Your task to perform on an android device: Open calendar and show me the third week of next month Image 0: 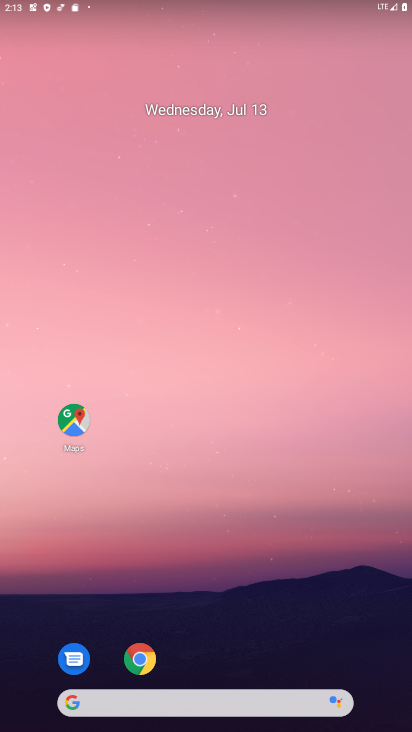
Step 0: drag from (388, 654) to (338, 230)
Your task to perform on an android device: Open calendar and show me the third week of next month Image 1: 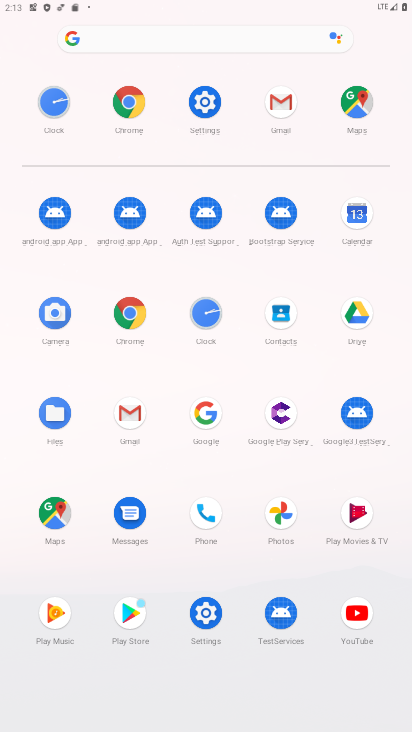
Step 1: click (358, 214)
Your task to perform on an android device: Open calendar and show me the third week of next month Image 2: 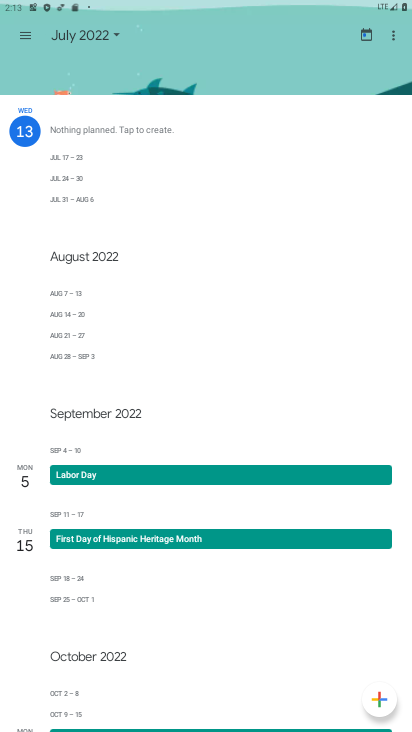
Step 2: click (25, 37)
Your task to perform on an android device: Open calendar and show me the third week of next month Image 3: 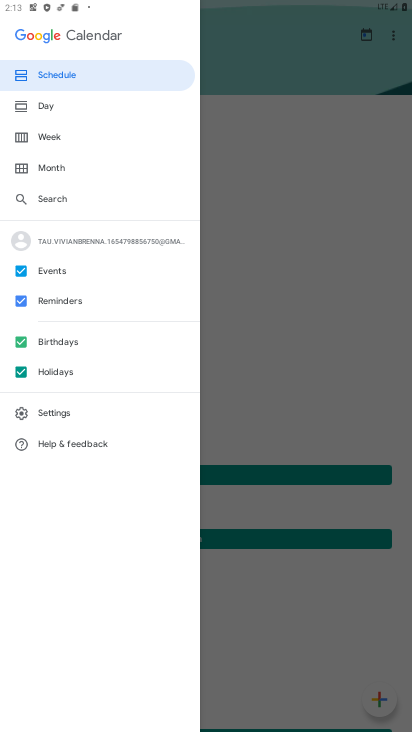
Step 3: click (48, 135)
Your task to perform on an android device: Open calendar and show me the third week of next month Image 4: 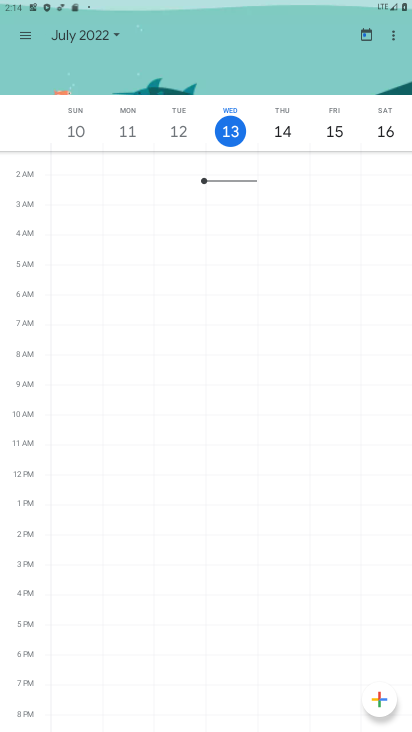
Step 4: click (114, 37)
Your task to perform on an android device: Open calendar and show me the third week of next month Image 5: 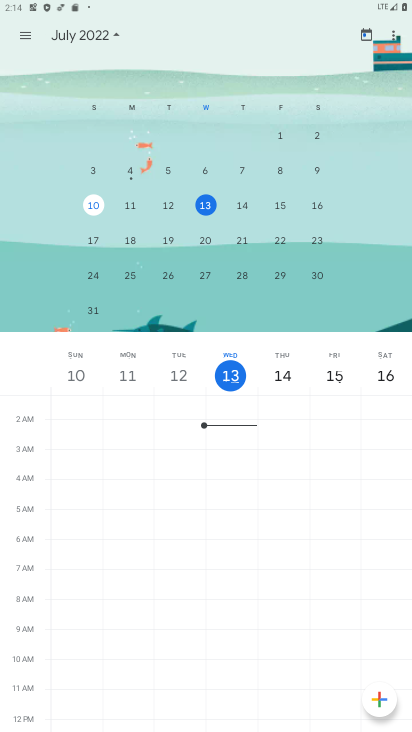
Step 5: drag from (327, 251) to (2, 211)
Your task to perform on an android device: Open calendar and show me the third week of next month Image 6: 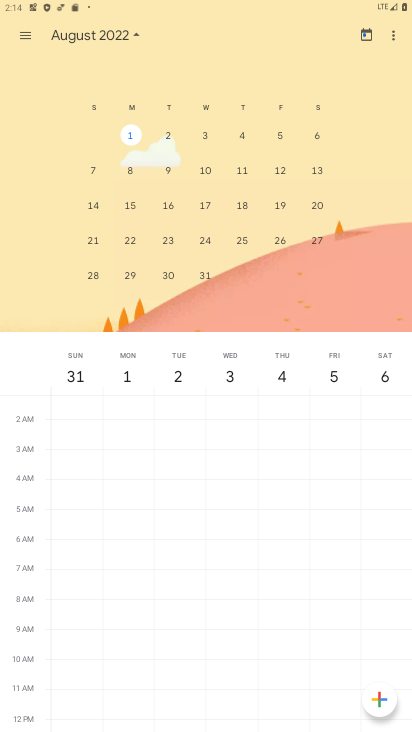
Step 6: click (92, 238)
Your task to perform on an android device: Open calendar and show me the third week of next month Image 7: 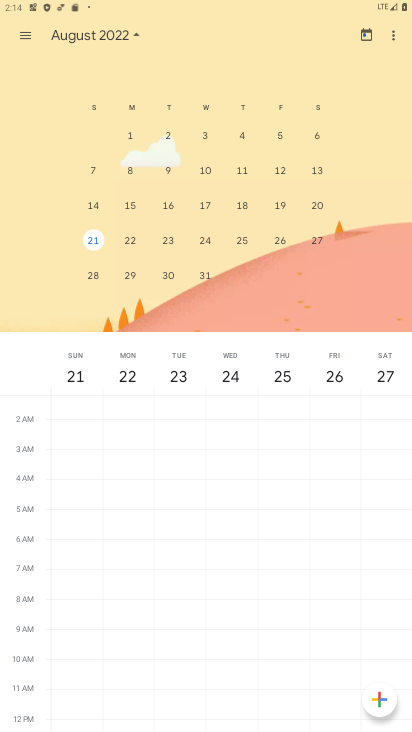
Step 7: task complete